Your task to perform on an android device: turn on the 24-hour format for clock Image 0: 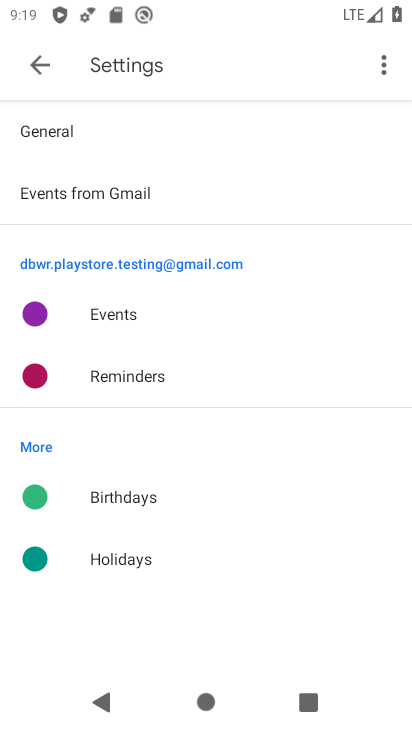
Step 0: press home button
Your task to perform on an android device: turn on the 24-hour format for clock Image 1: 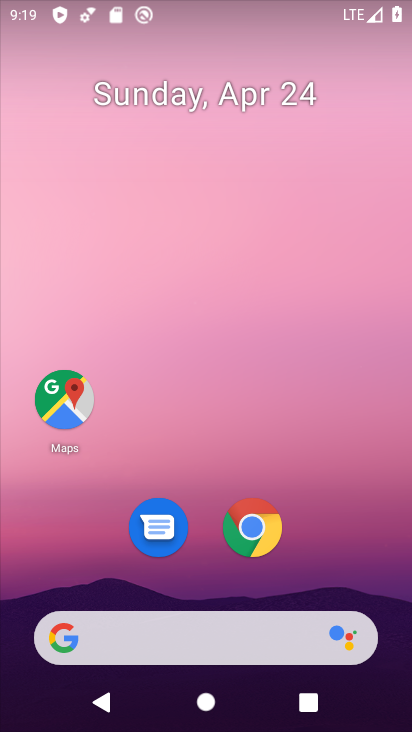
Step 1: drag from (298, 533) to (334, 105)
Your task to perform on an android device: turn on the 24-hour format for clock Image 2: 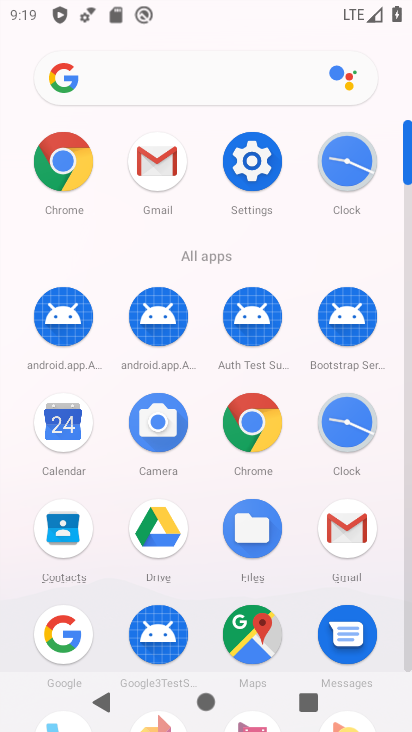
Step 2: click (347, 433)
Your task to perform on an android device: turn on the 24-hour format for clock Image 3: 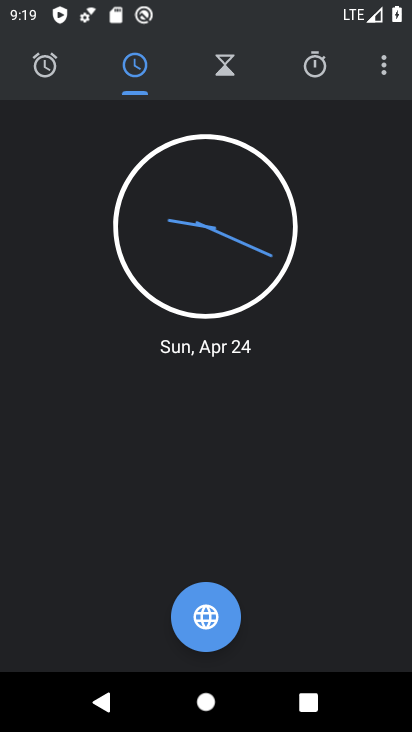
Step 3: click (385, 67)
Your task to perform on an android device: turn on the 24-hour format for clock Image 4: 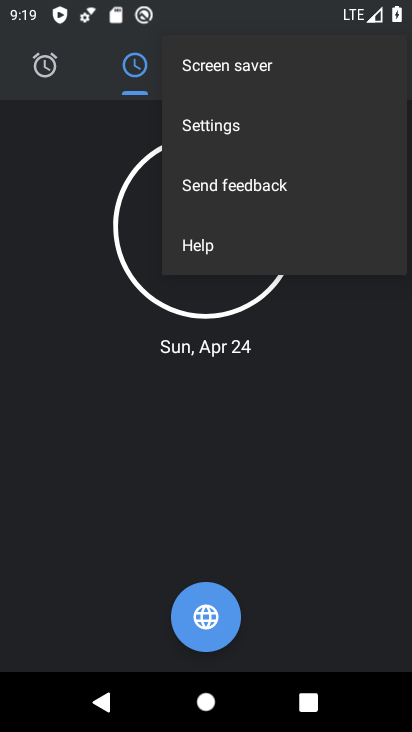
Step 4: click (225, 131)
Your task to perform on an android device: turn on the 24-hour format for clock Image 5: 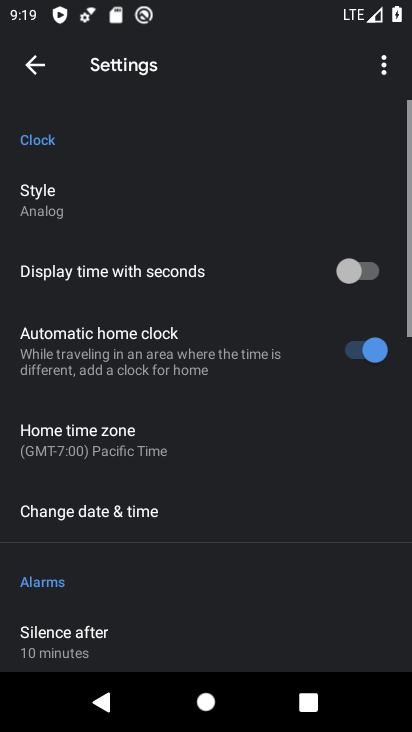
Step 5: drag from (252, 583) to (326, 100)
Your task to perform on an android device: turn on the 24-hour format for clock Image 6: 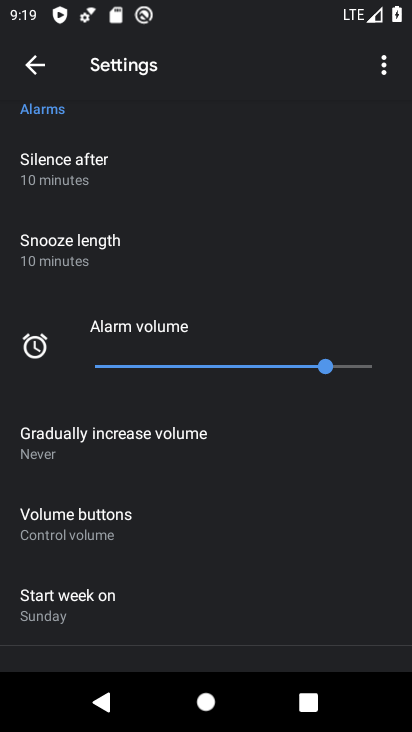
Step 6: drag from (241, 637) to (292, 284)
Your task to perform on an android device: turn on the 24-hour format for clock Image 7: 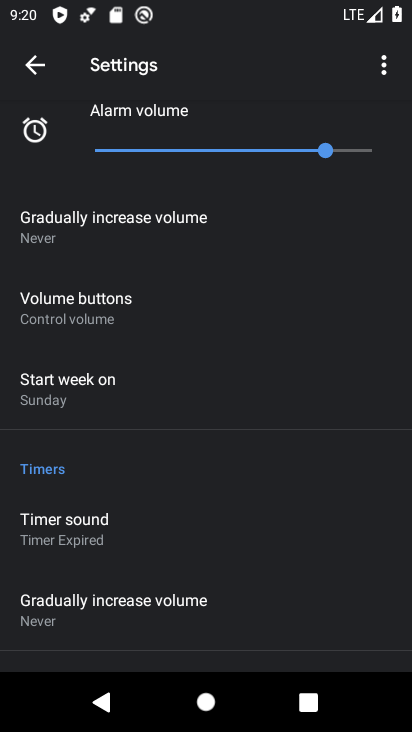
Step 7: drag from (129, 643) to (174, 624)
Your task to perform on an android device: turn on the 24-hour format for clock Image 8: 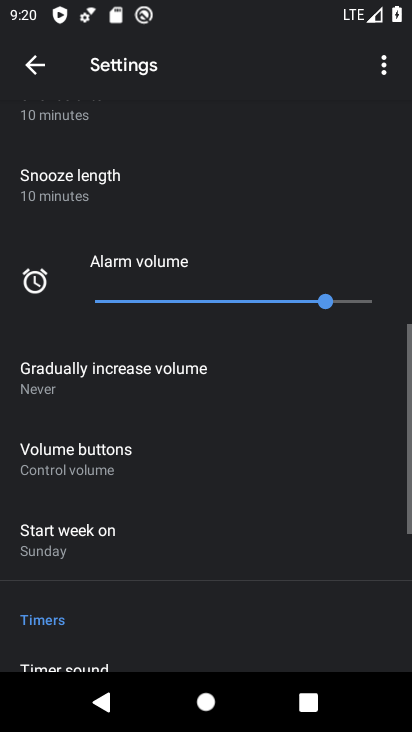
Step 8: drag from (199, 228) to (165, 595)
Your task to perform on an android device: turn on the 24-hour format for clock Image 9: 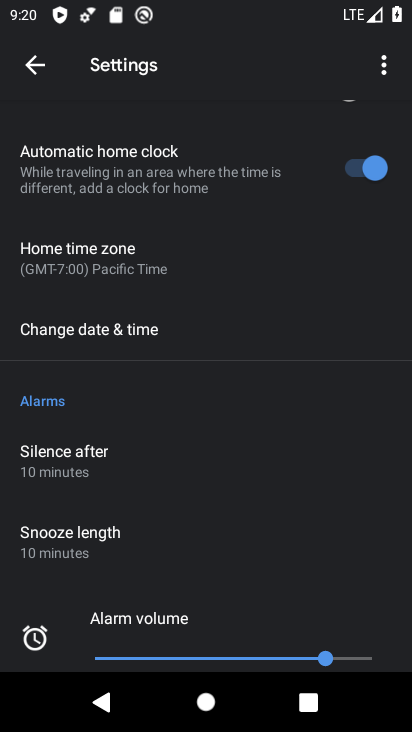
Step 9: click (151, 357)
Your task to perform on an android device: turn on the 24-hour format for clock Image 10: 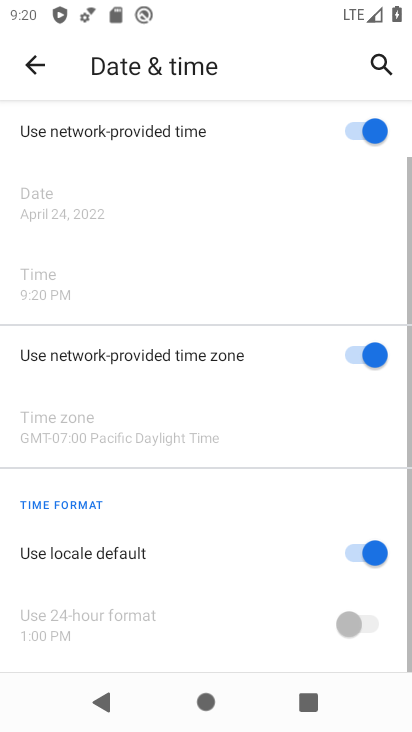
Step 10: drag from (214, 637) to (305, 217)
Your task to perform on an android device: turn on the 24-hour format for clock Image 11: 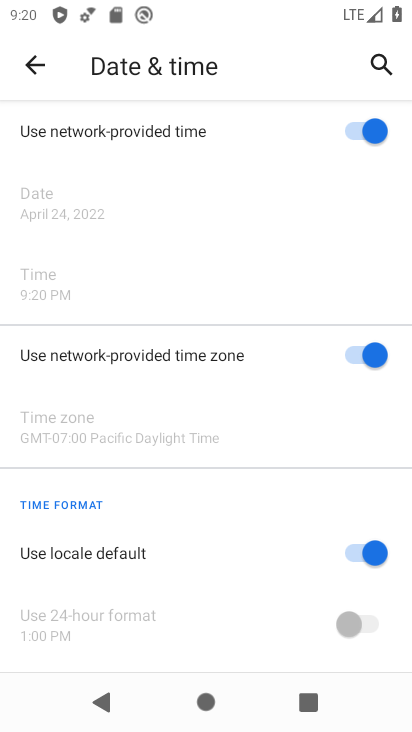
Step 11: click (356, 553)
Your task to perform on an android device: turn on the 24-hour format for clock Image 12: 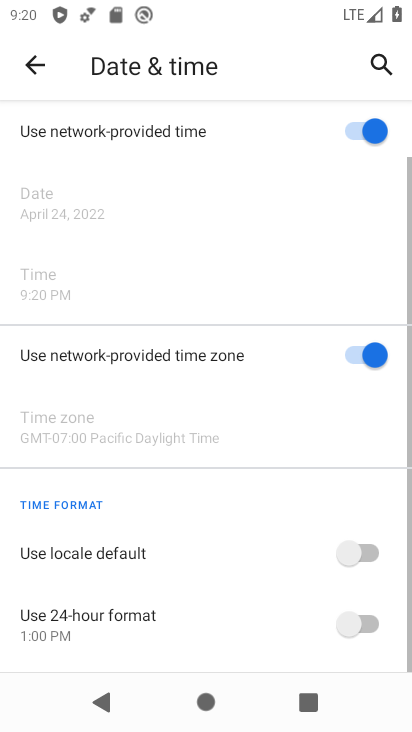
Step 12: click (373, 626)
Your task to perform on an android device: turn on the 24-hour format for clock Image 13: 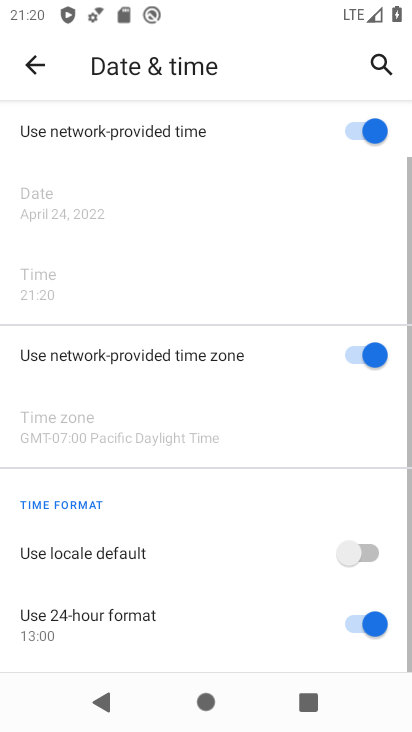
Step 13: task complete